Your task to perform on an android device: create a new album in the google photos Image 0: 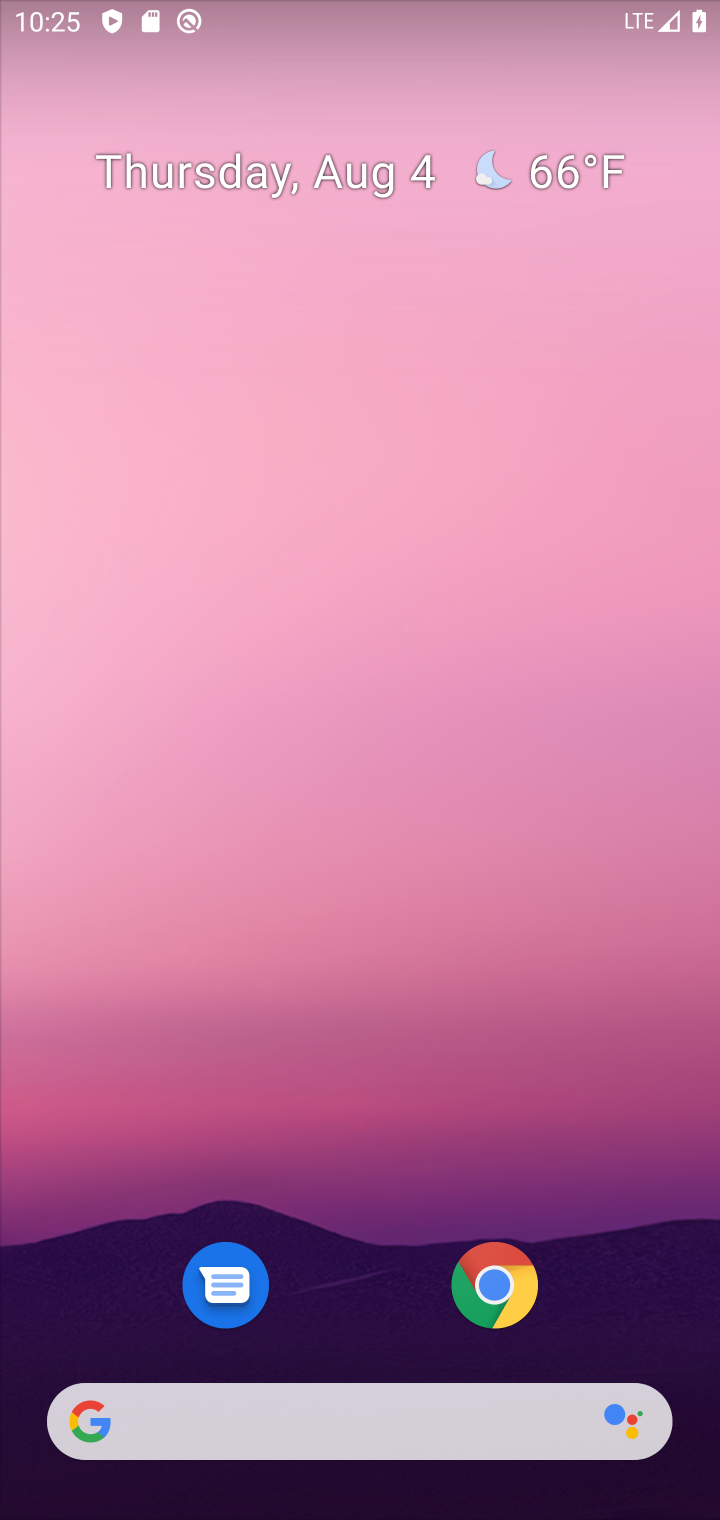
Step 0: press home button
Your task to perform on an android device: create a new album in the google photos Image 1: 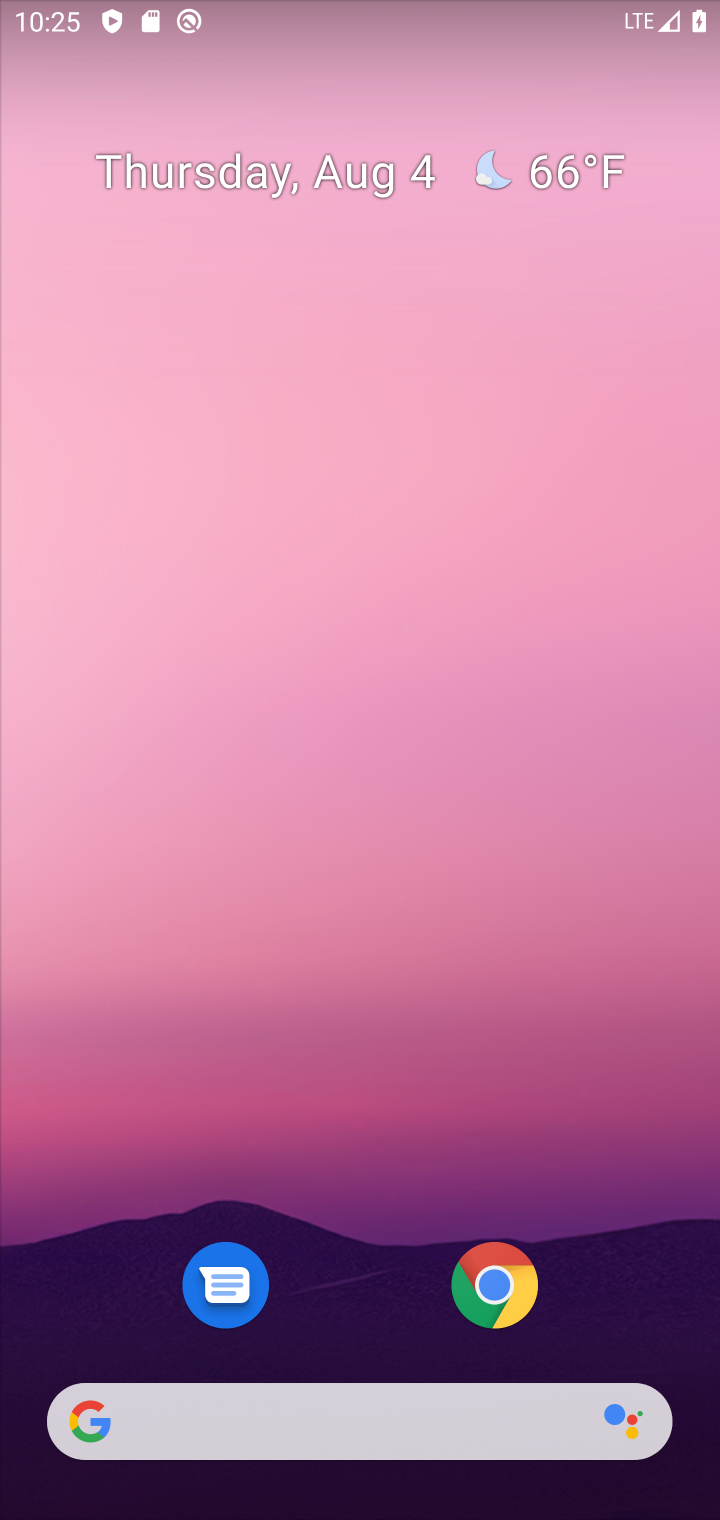
Step 1: drag from (345, 1315) to (385, 35)
Your task to perform on an android device: create a new album in the google photos Image 2: 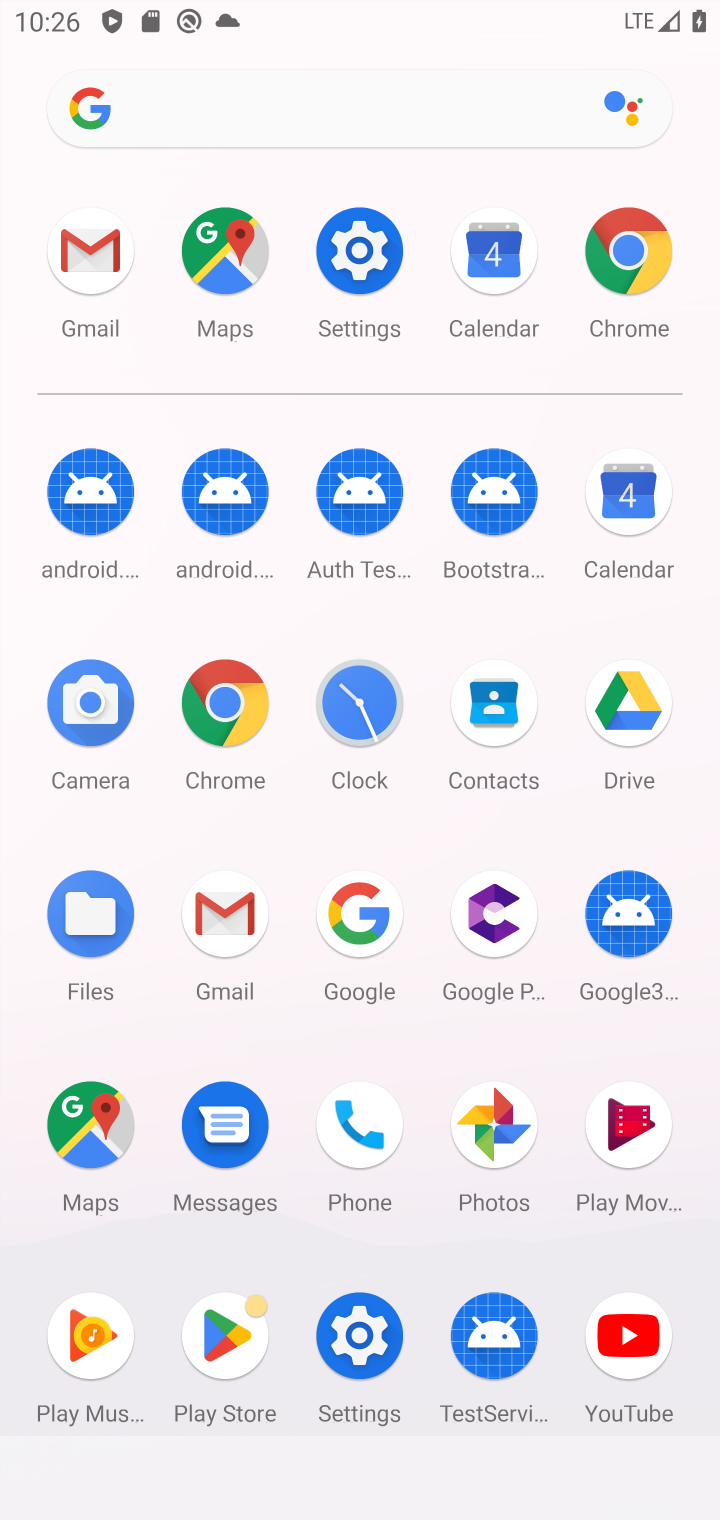
Step 2: click (481, 1120)
Your task to perform on an android device: create a new album in the google photos Image 3: 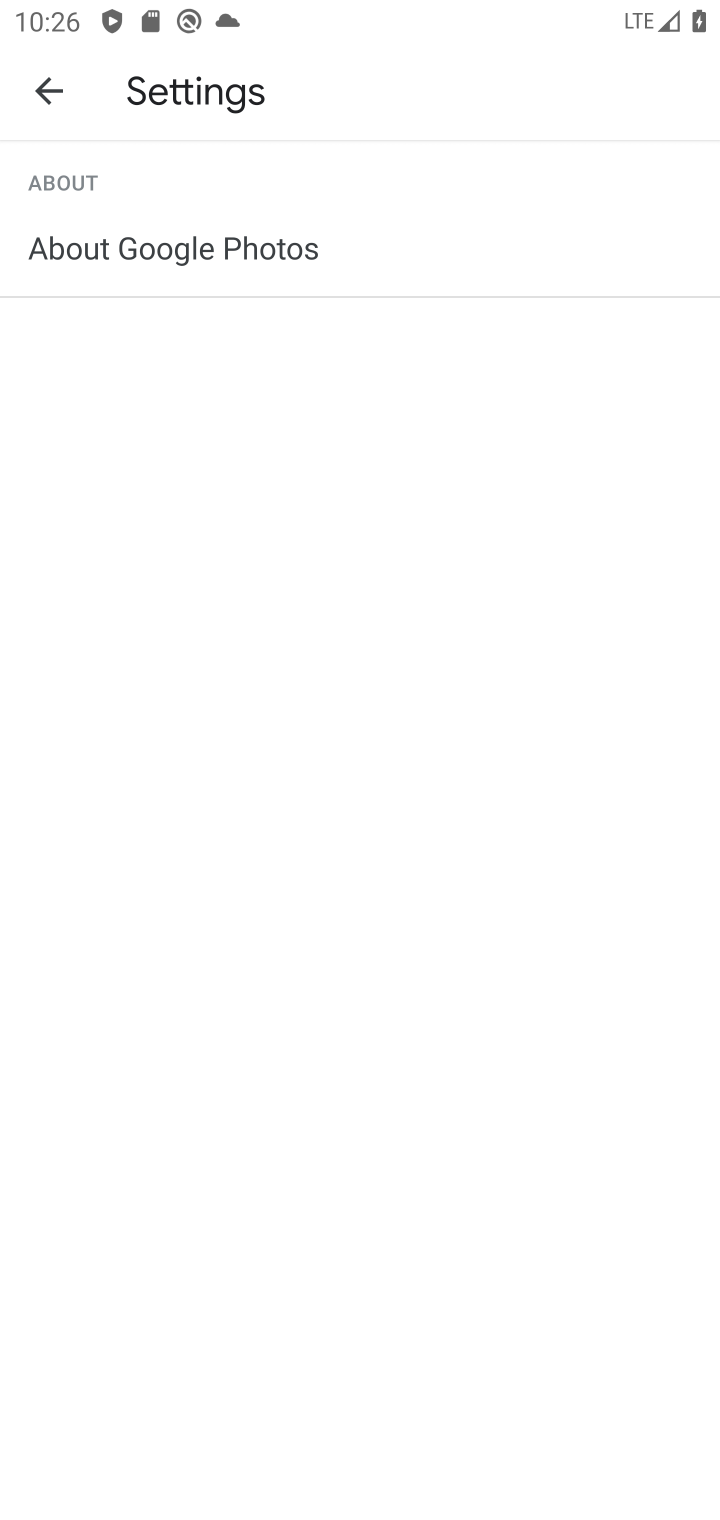
Step 3: click (45, 78)
Your task to perform on an android device: create a new album in the google photos Image 4: 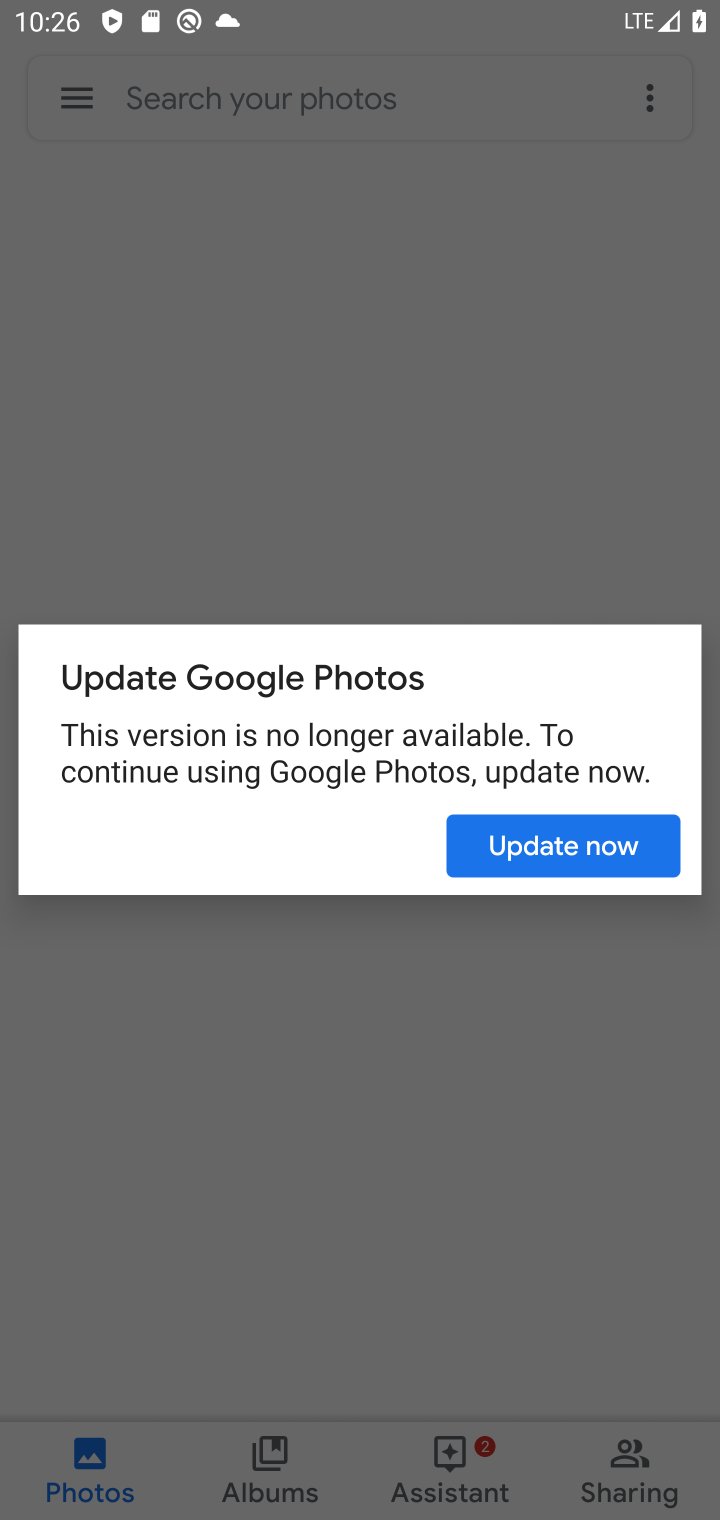
Step 4: click (542, 828)
Your task to perform on an android device: create a new album in the google photos Image 5: 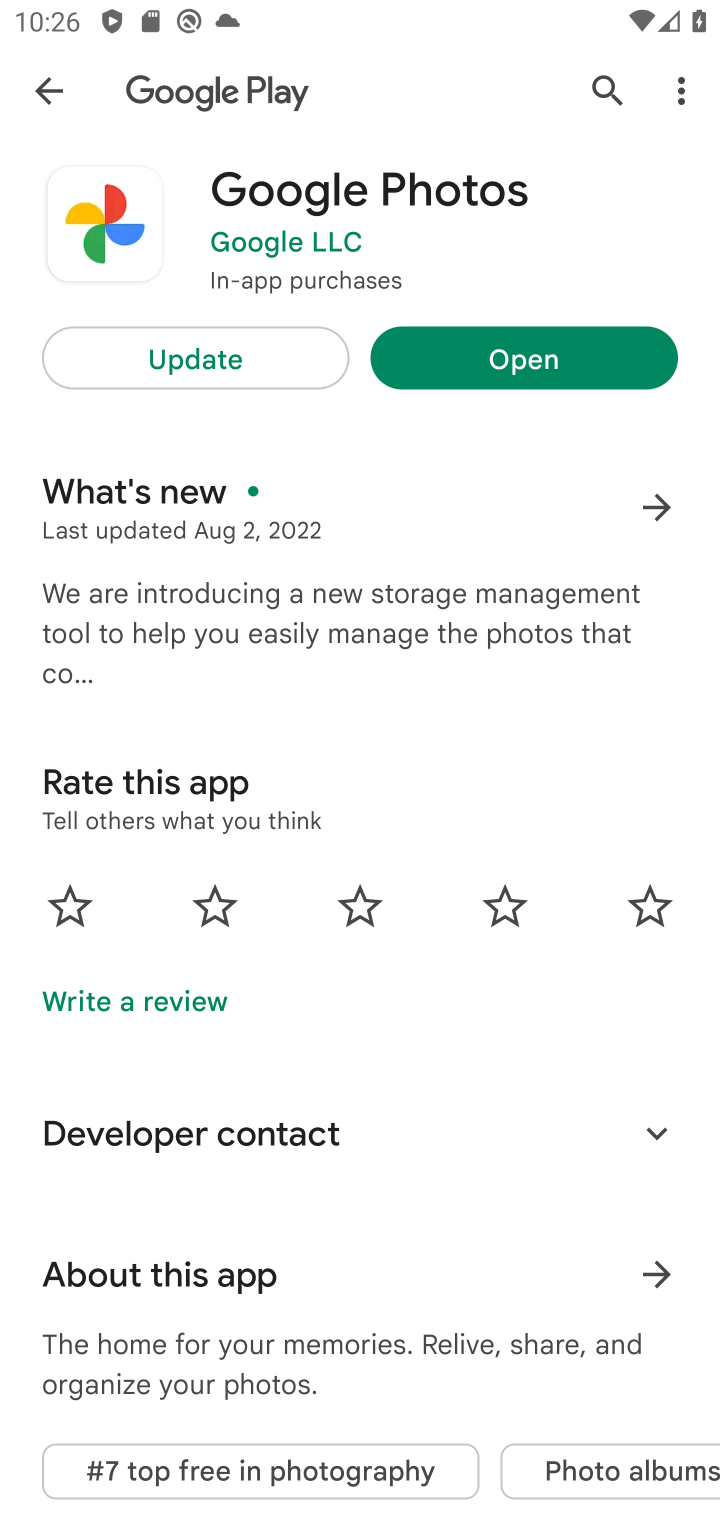
Step 5: click (257, 364)
Your task to perform on an android device: create a new album in the google photos Image 6: 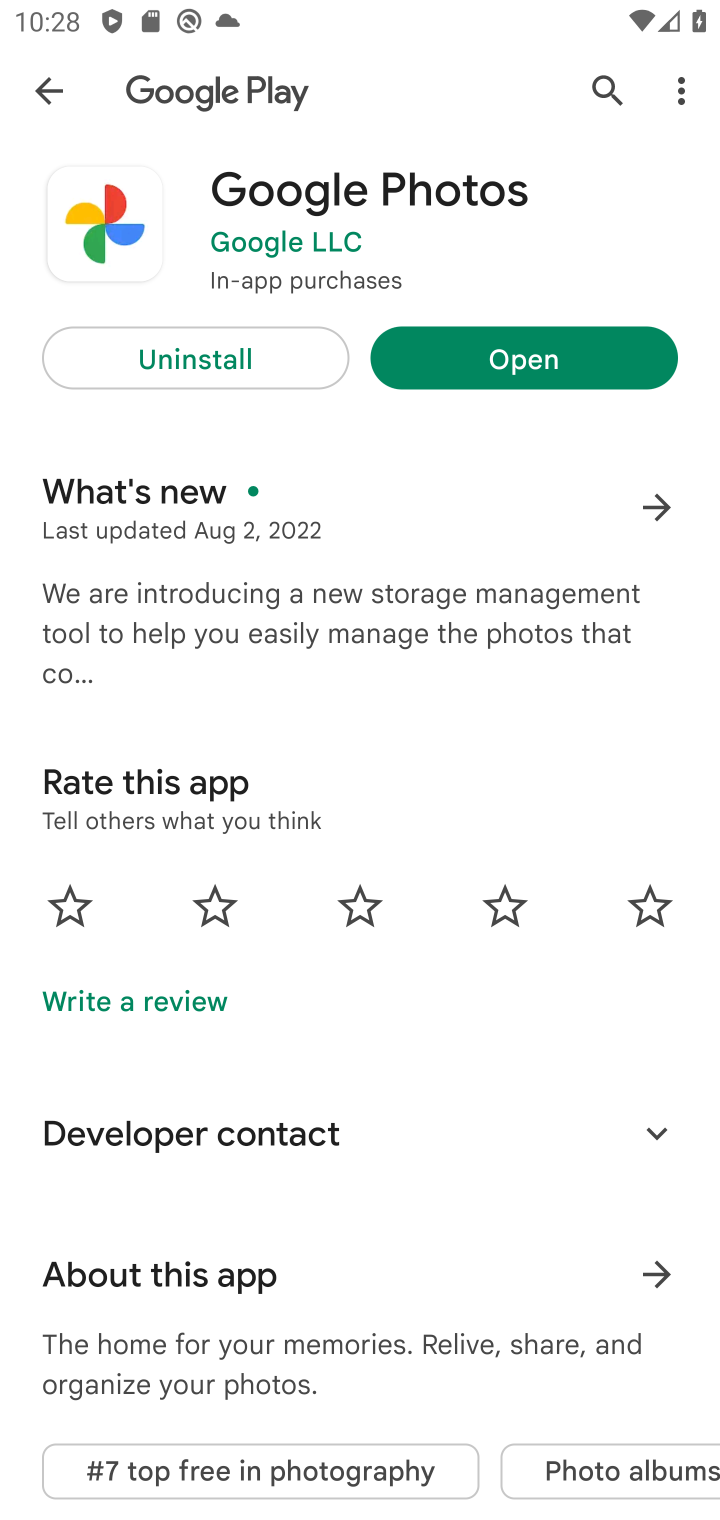
Step 6: click (504, 349)
Your task to perform on an android device: create a new album in the google photos Image 7: 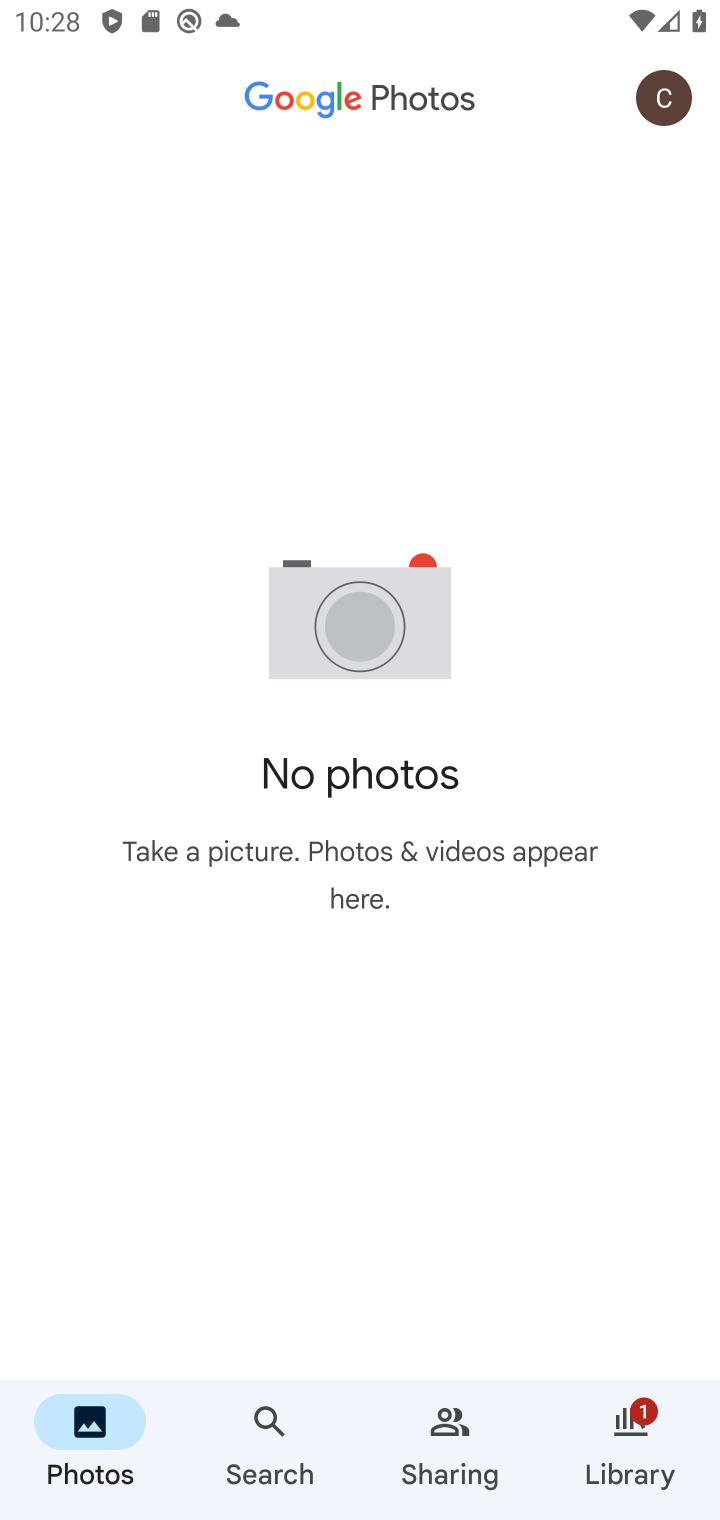
Step 7: task complete